Your task to perform on an android device: Open Google Maps Image 0: 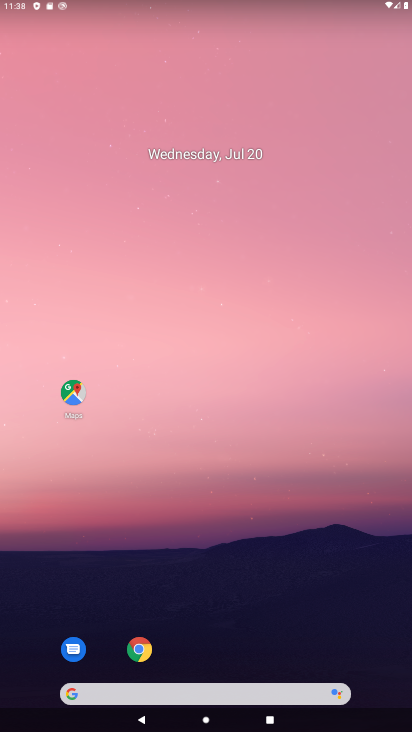
Step 0: drag from (215, 645) to (361, 114)
Your task to perform on an android device: Open Google Maps Image 1: 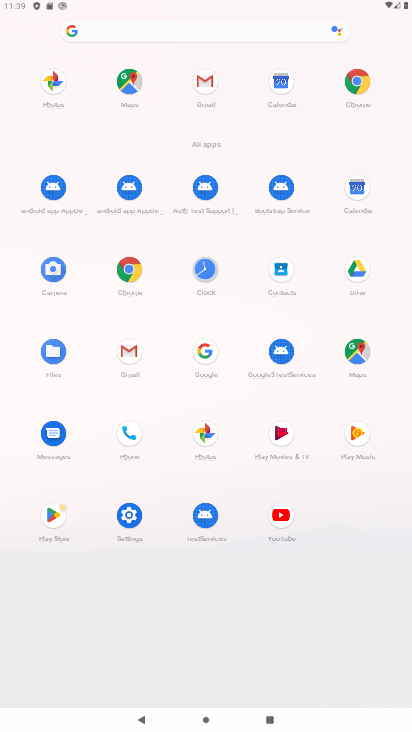
Step 1: click (363, 364)
Your task to perform on an android device: Open Google Maps Image 2: 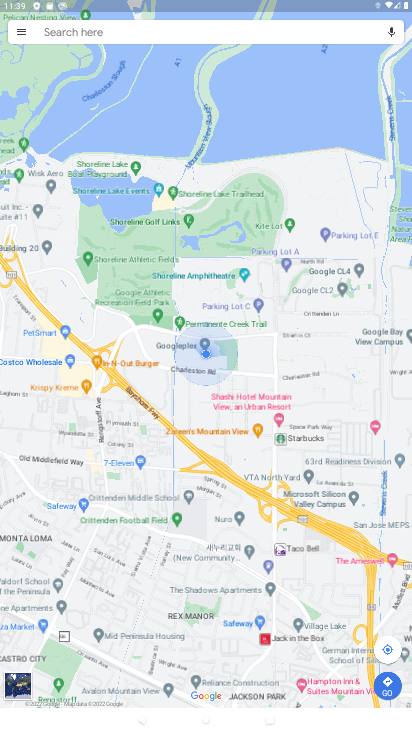
Step 2: task complete